Your task to perform on an android device: When is my next meeting? Image 0: 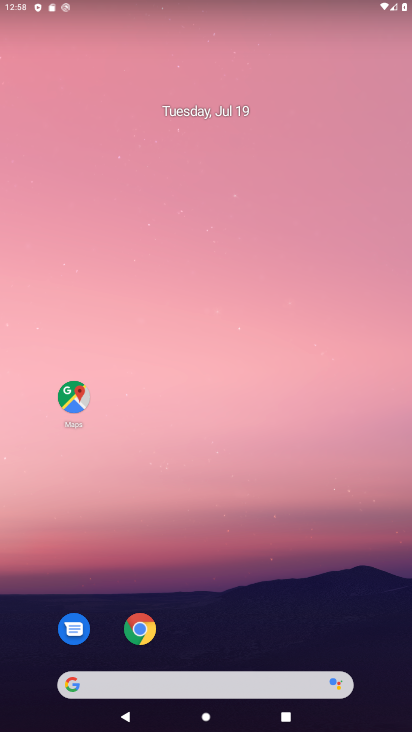
Step 0: drag from (274, 599) to (248, 31)
Your task to perform on an android device: When is my next meeting? Image 1: 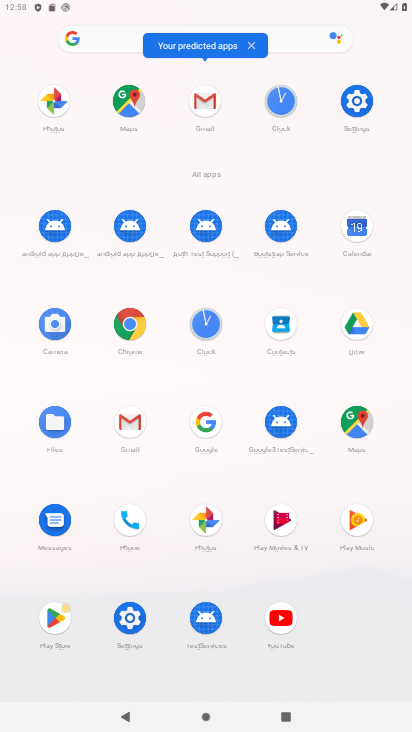
Step 1: click (356, 229)
Your task to perform on an android device: When is my next meeting? Image 2: 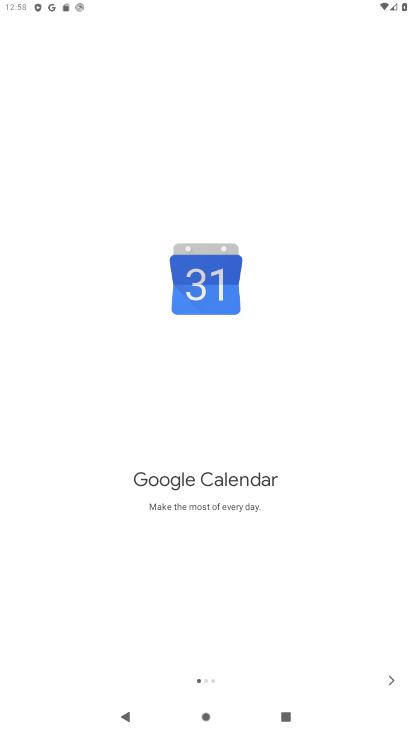
Step 2: click (393, 689)
Your task to perform on an android device: When is my next meeting? Image 3: 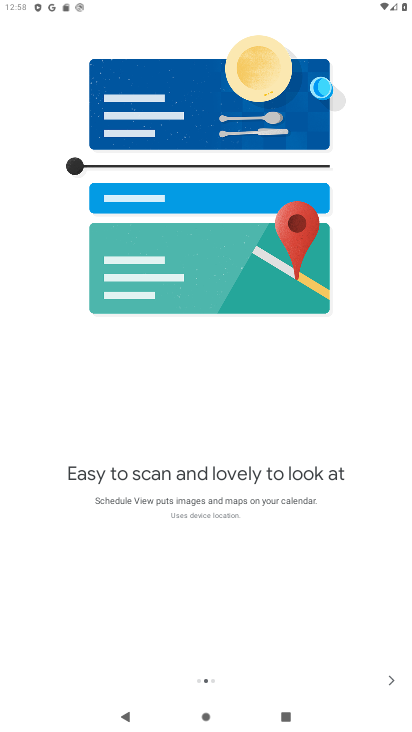
Step 3: click (393, 689)
Your task to perform on an android device: When is my next meeting? Image 4: 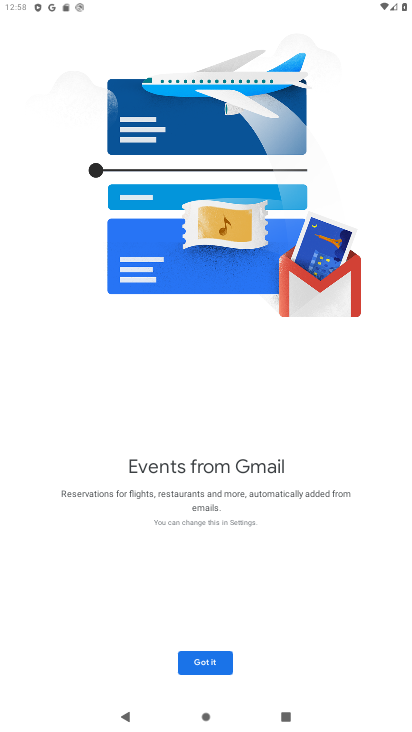
Step 4: click (202, 668)
Your task to perform on an android device: When is my next meeting? Image 5: 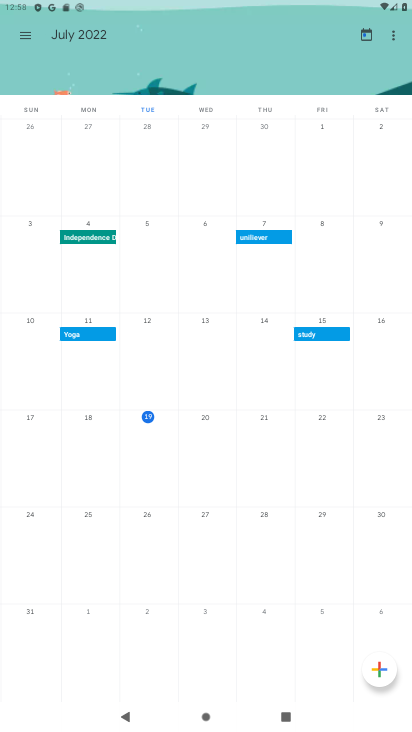
Step 5: click (143, 434)
Your task to perform on an android device: When is my next meeting? Image 6: 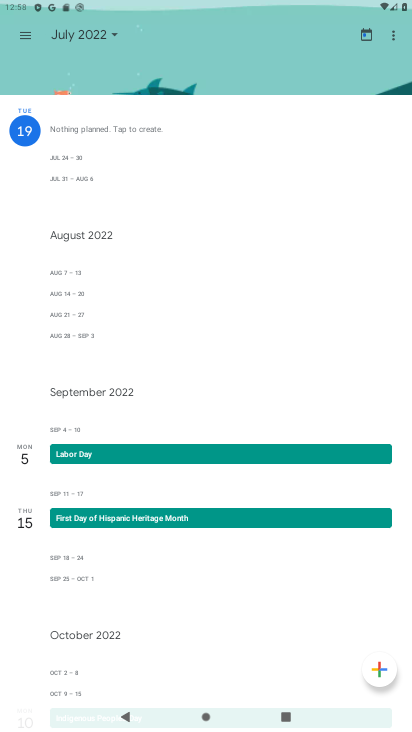
Step 6: task complete